Your task to perform on an android device: Open settings Image 0: 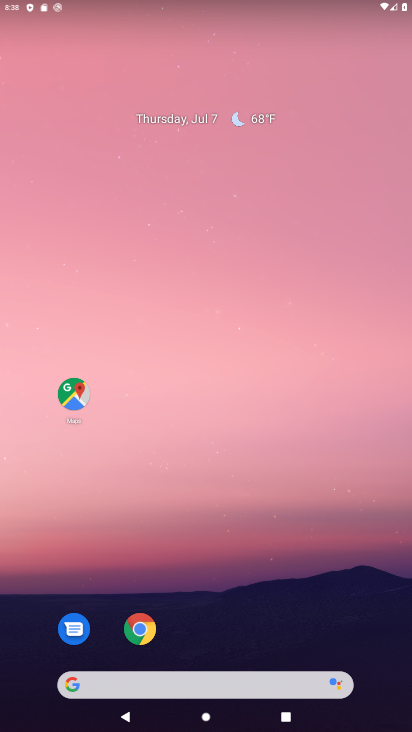
Step 0: drag from (203, 630) to (209, 168)
Your task to perform on an android device: Open settings Image 1: 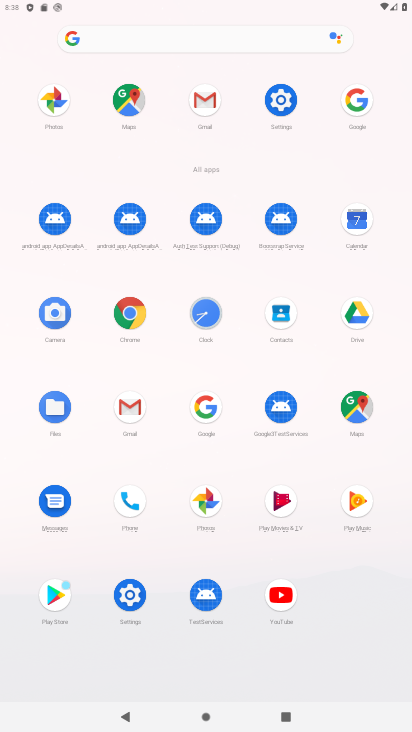
Step 1: click (282, 103)
Your task to perform on an android device: Open settings Image 2: 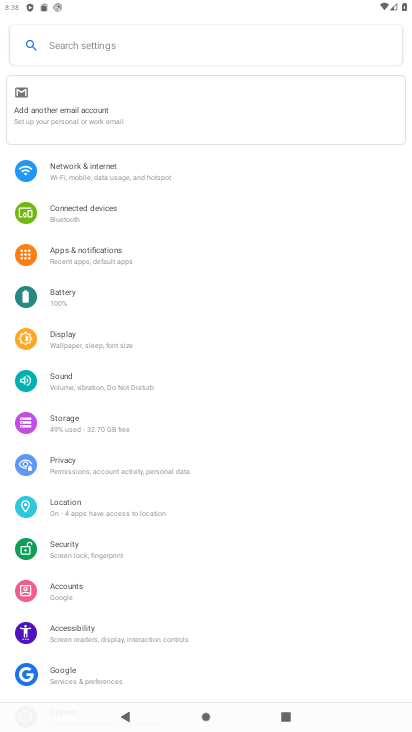
Step 2: task complete